Your task to perform on an android device: Open Google Maps Image 0: 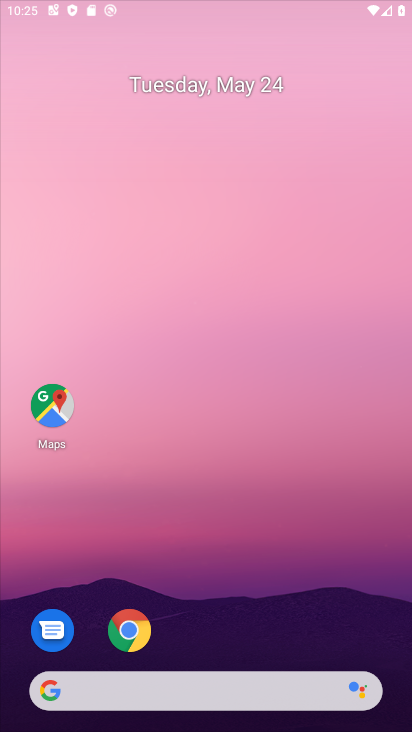
Step 0: press home button
Your task to perform on an android device: Open Google Maps Image 1: 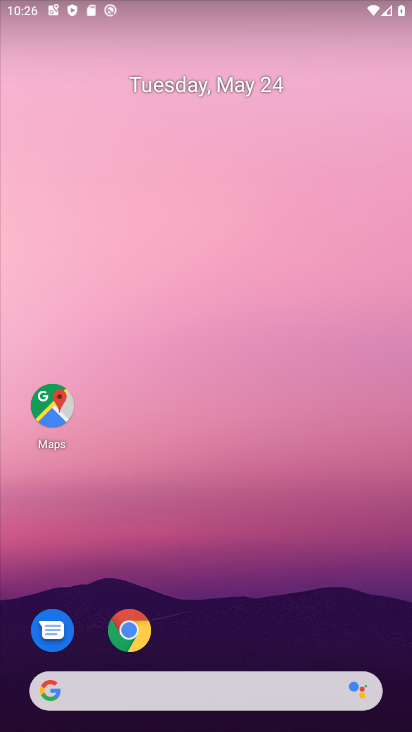
Step 1: click (53, 401)
Your task to perform on an android device: Open Google Maps Image 2: 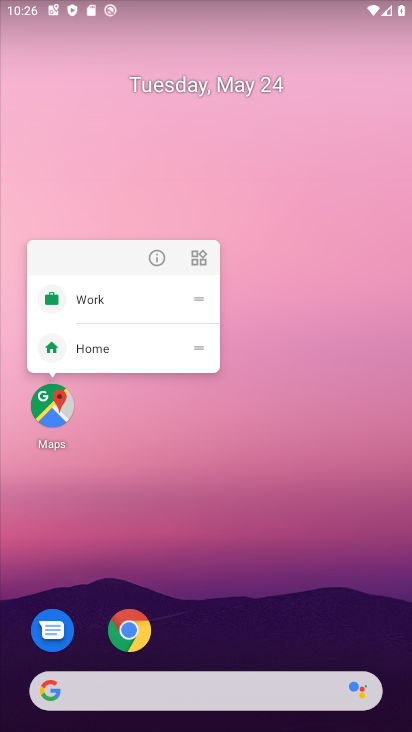
Step 2: click (49, 403)
Your task to perform on an android device: Open Google Maps Image 3: 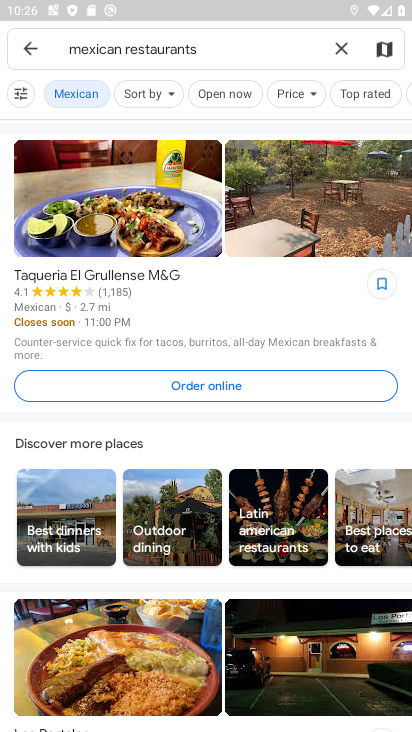
Step 3: press home button
Your task to perform on an android device: Open Google Maps Image 4: 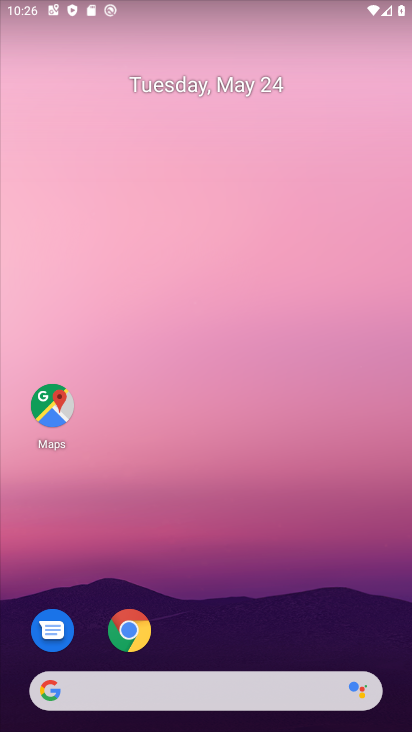
Step 4: click (51, 404)
Your task to perform on an android device: Open Google Maps Image 5: 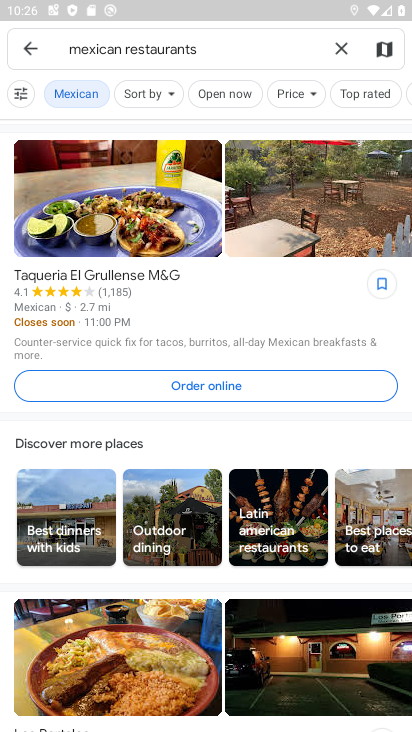
Step 5: click (36, 47)
Your task to perform on an android device: Open Google Maps Image 6: 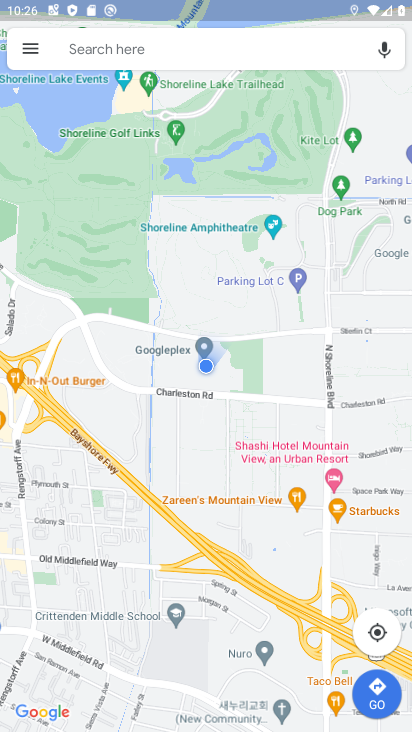
Step 6: task complete